Your task to perform on an android device: change the upload size in google photos Image 0: 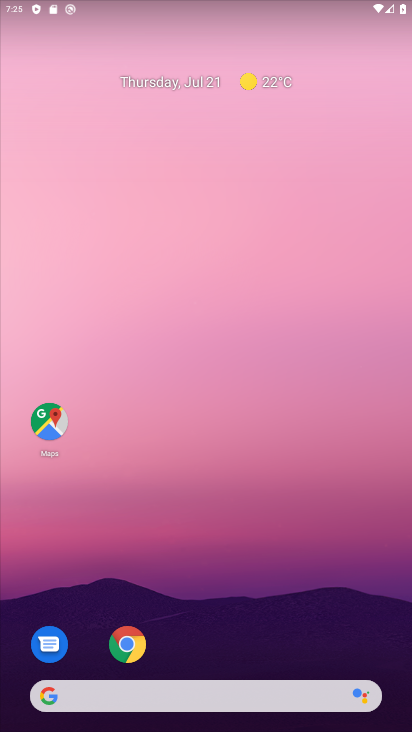
Step 0: drag from (291, 566) to (345, 176)
Your task to perform on an android device: change the upload size in google photos Image 1: 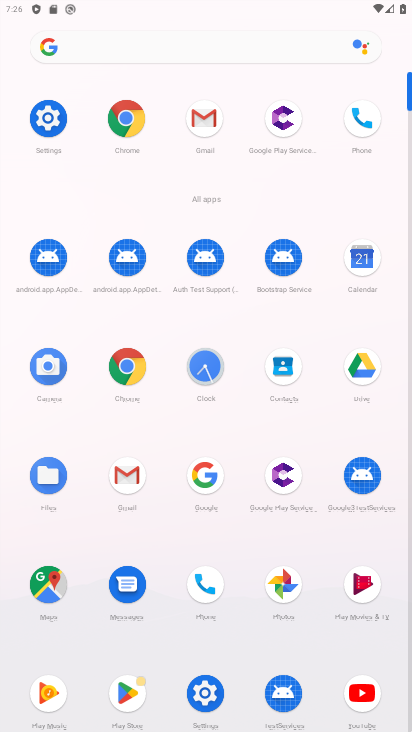
Step 1: click (278, 595)
Your task to perform on an android device: change the upload size in google photos Image 2: 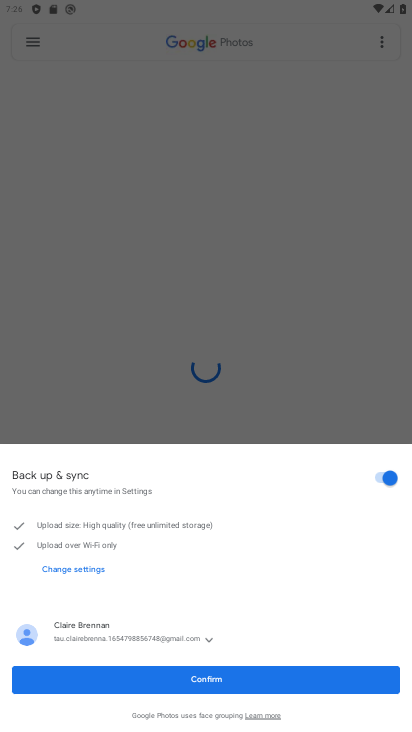
Step 2: click (222, 681)
Your task to perform on an android device: change the upload size in google photos Image 3: 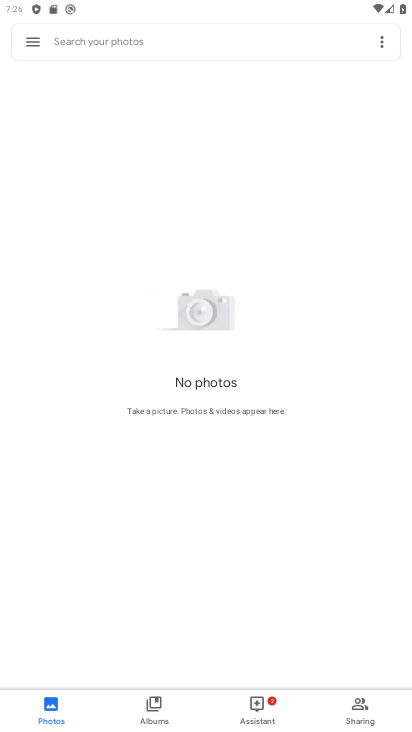
Step 3: click (31, 45)
Your task to perform on an android device: change the upload size in google photos Image 4: 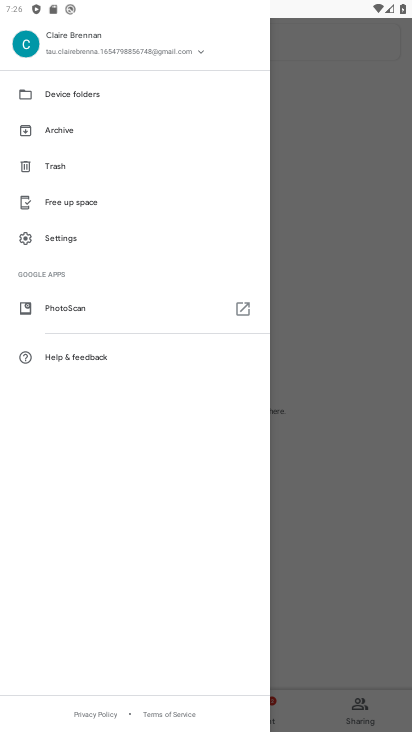
Step 4: click (61, 235)
Your task to perform on an android device: change the upload size in google photos Image 5: 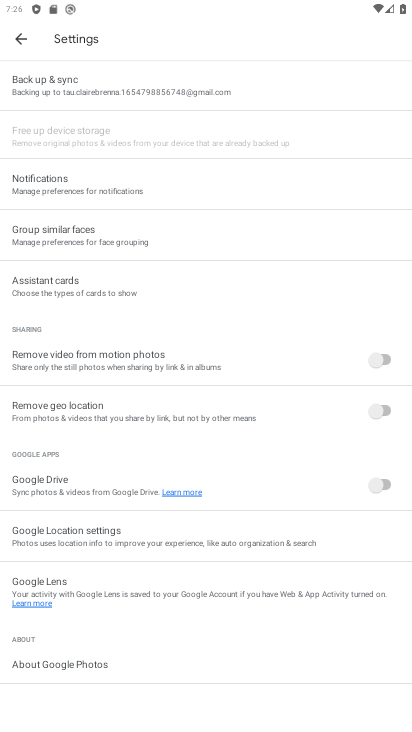
Step 5: click (98, 92)
Your task to perform on an android device: change the upload size in google photos Image 6: 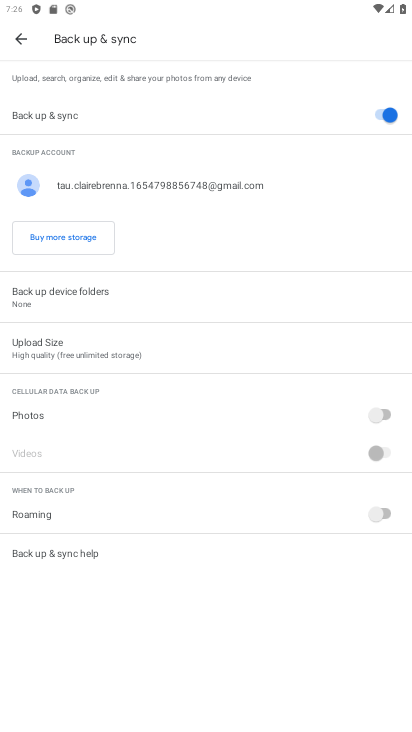
Step 6: click (93, 346)
Your task to perform on an android device: change the upload size in google photos Image 7: 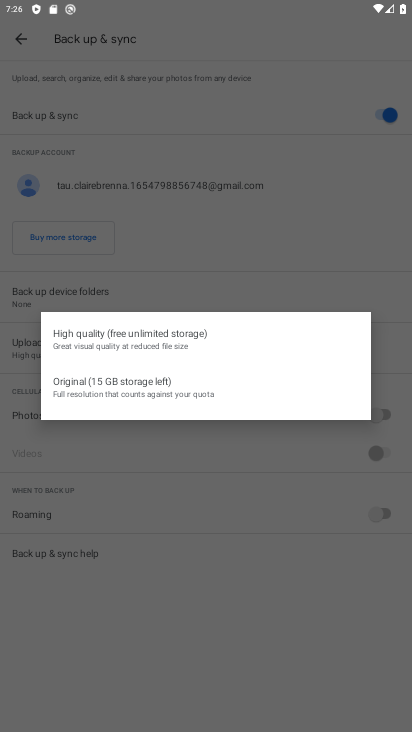
Step 7: click (88, 390)
Your task to perform on an android device: change the upload size in google photos Image 8: 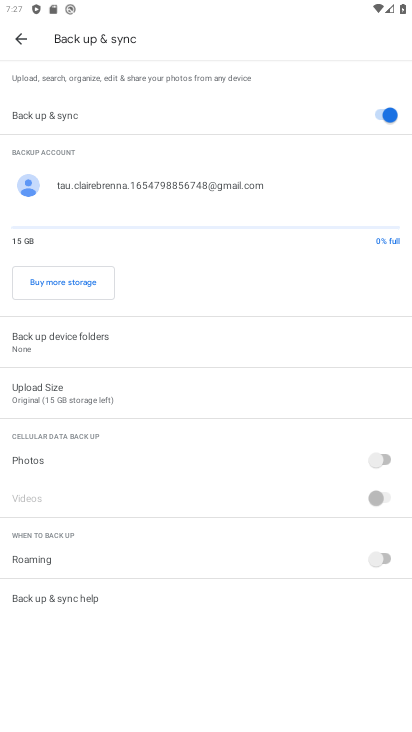
Step 8: task complete